Your task to perform on an android device: find which apps use the phone's location Image 0: 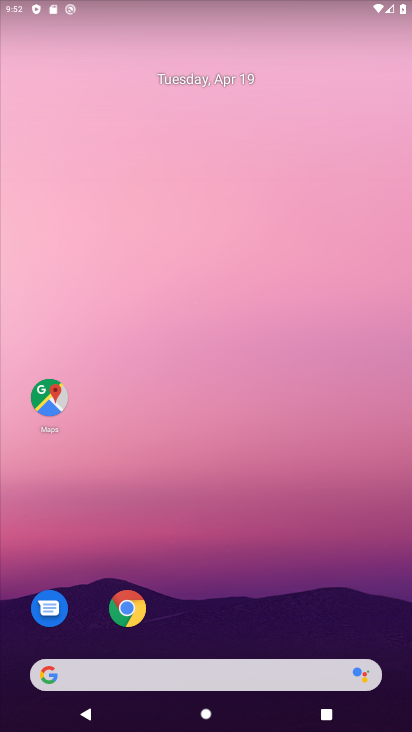
Step 0: drag from (357, 622) to (346, 200)
Your task to perform on an android device: find which apps use the phone's location Image 1: 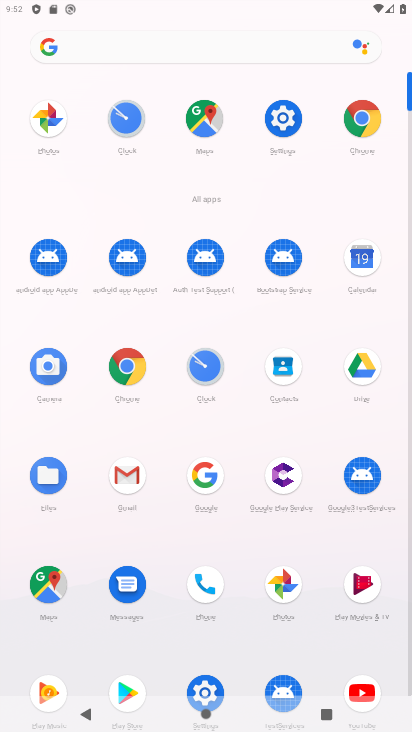
Step 1: click (281, 112)
Your task to perform on an android device: find which apps use the phone's location Image 2: 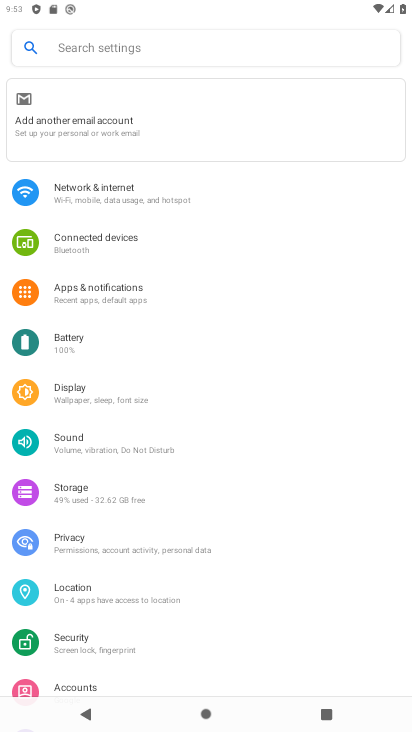
Step 2: click (74, 589)
Your task to perform on an android device: find which apps use the phone's location Image 3: 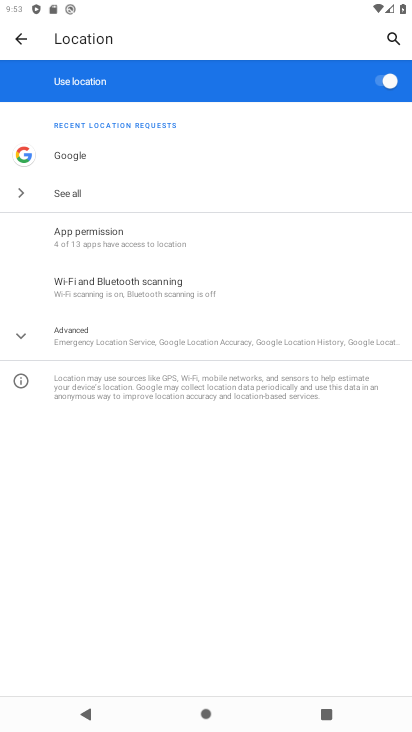
Step 3: click (64, 328)
Your task to perform on an android device: find which apps use the phone's location Image 4: 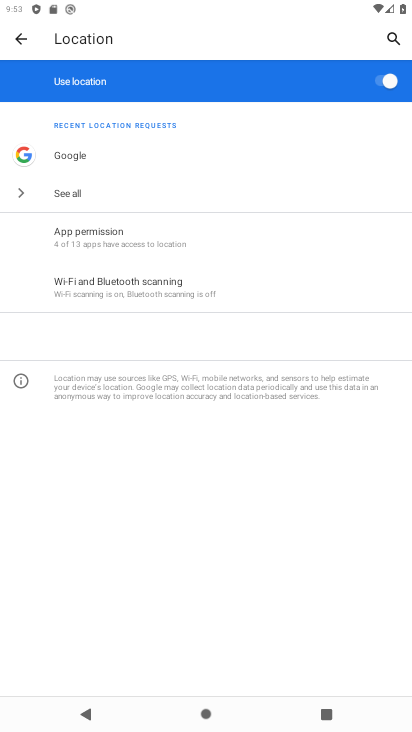
Step 4: click (65, 241)
Your task to perform on an android device: find which apps use the phone's location Image 5: 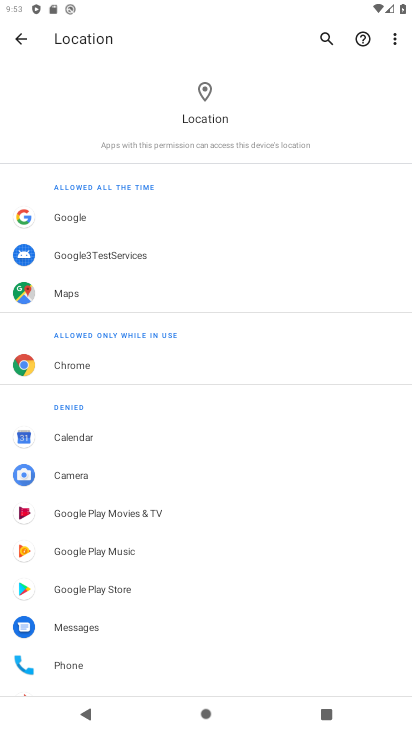
Step 5: task complete